Your task to perform on an android device: Go to Google Image 0: 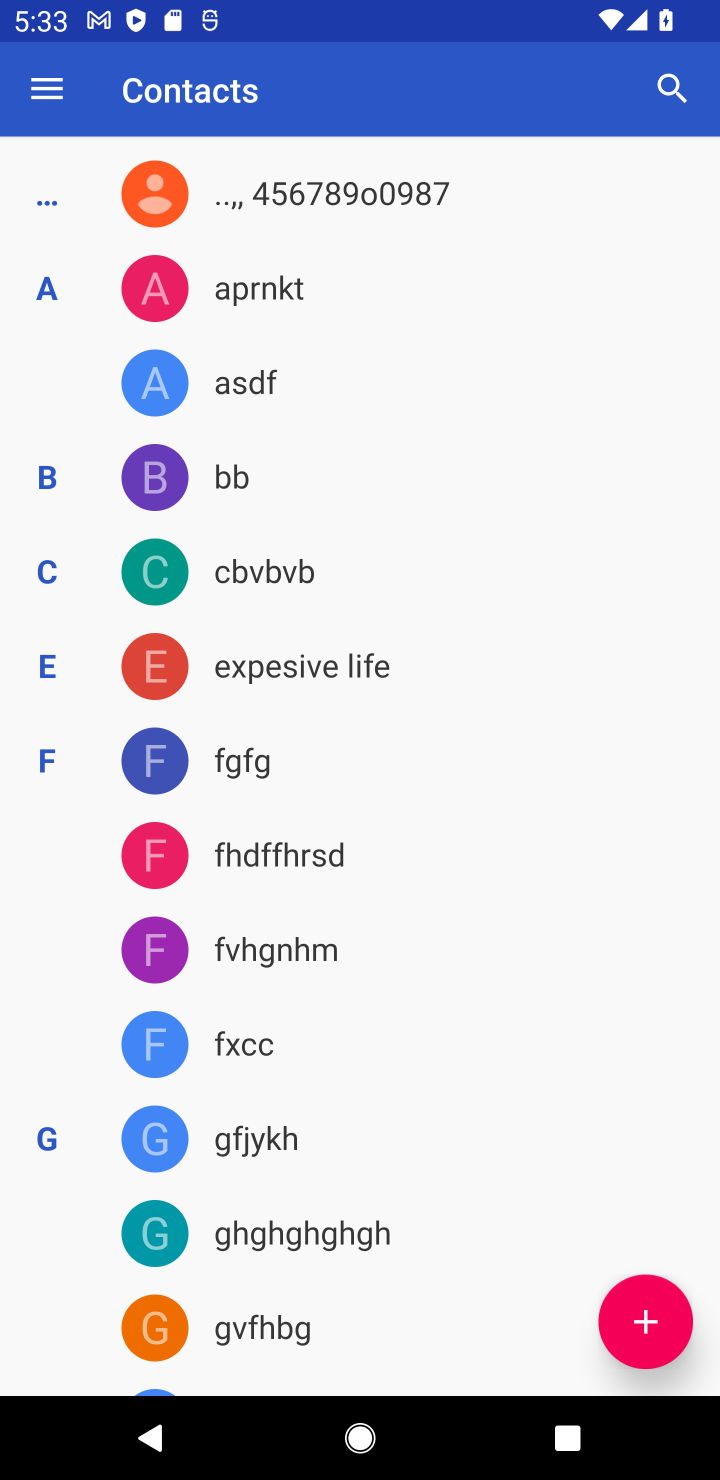
Step 0: task complete